Your task to perform on an android device: Search for a home improvement project you can do. Image 0: 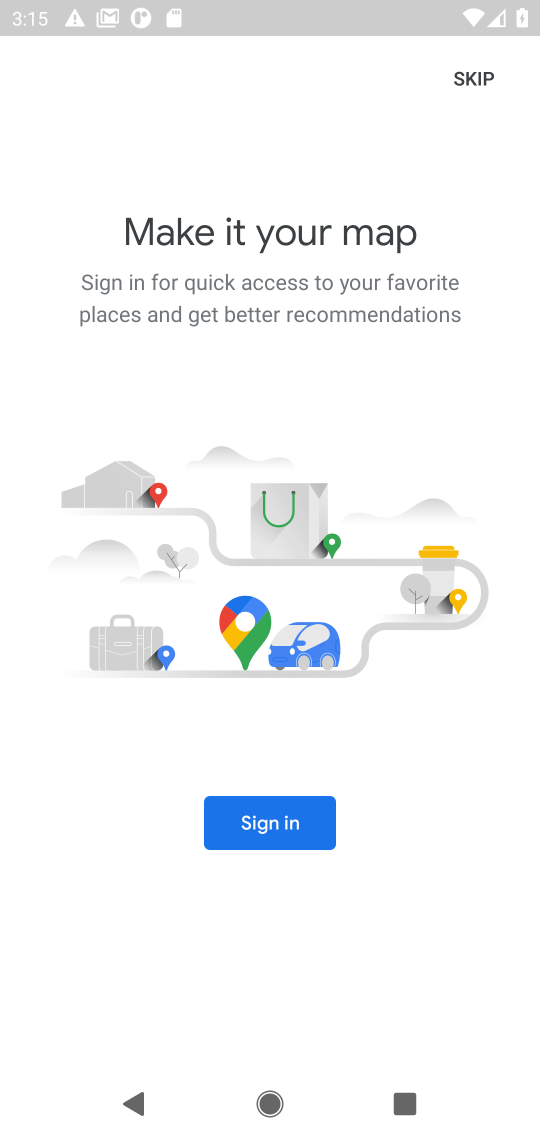
Step 0: press home button
Your task to perform on an android device: Search for a home improvement project you can do. Image 1: 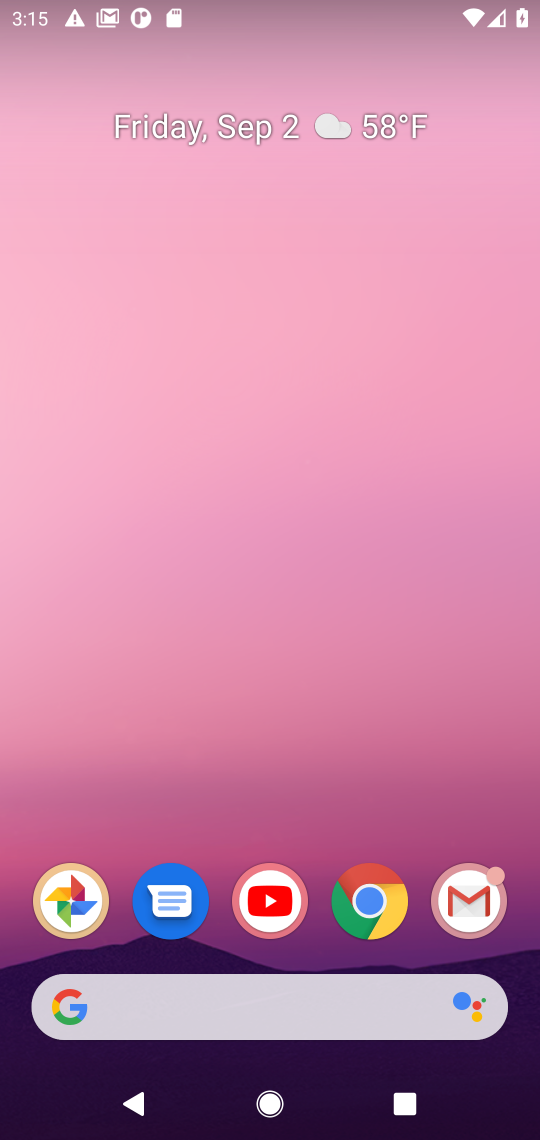
Step 1: drag from (292, 816) to (271, 48)
Your task to perform on an android device: Search for a home improvement project you can do. Image 2: 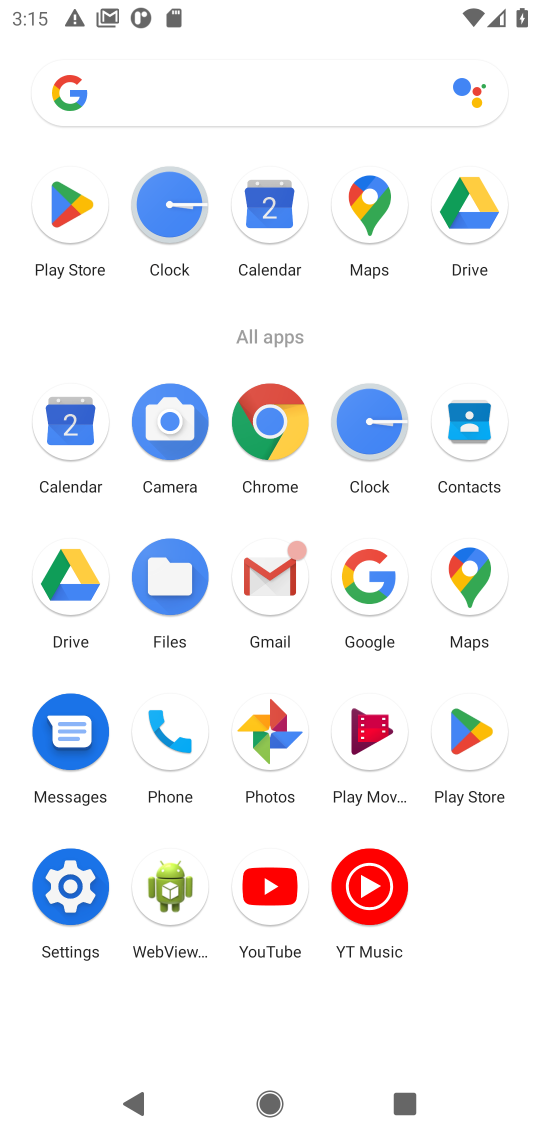
Step 2: click (286, 420)
Your task to perform on an android device: Search for a home improvement project you can do. Image 3: 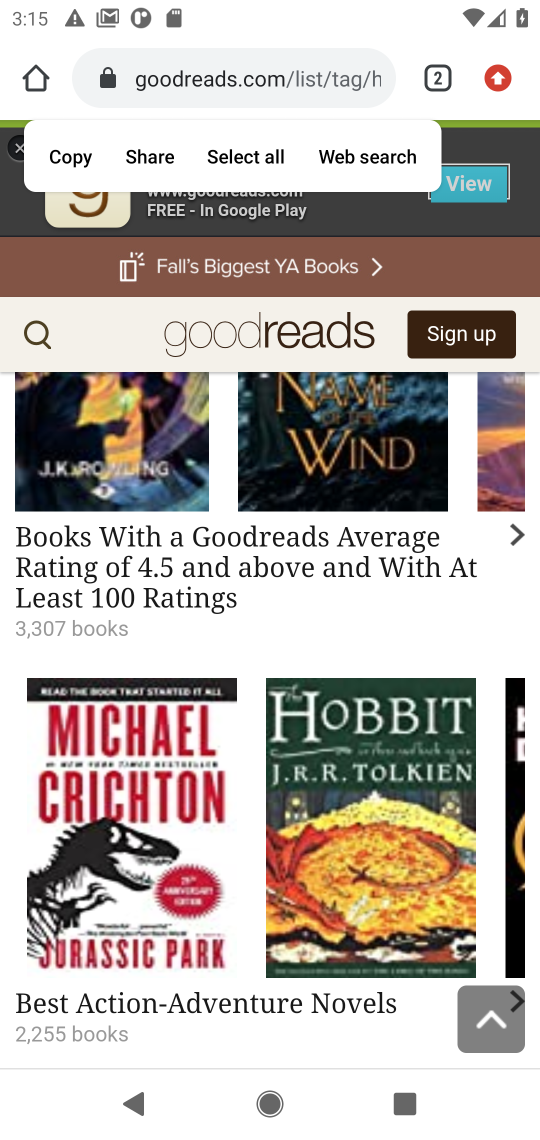
Step 3: click (321, 87)
Your task to perform on an android device: Search for a home improvement project you can do. Image 4: 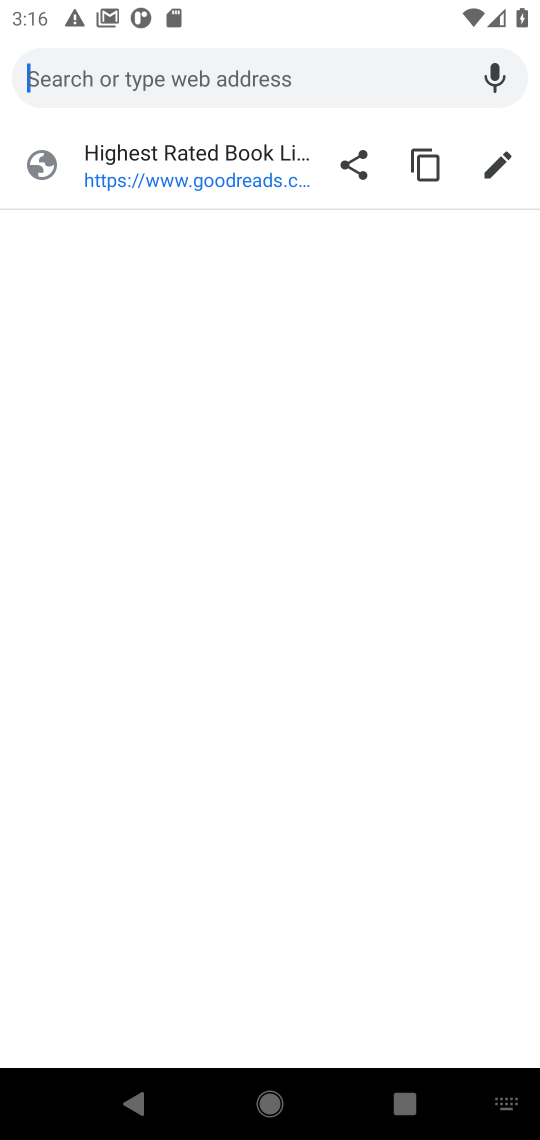
Step 4: type "Home improvement project "
Your task to perform on an android device: Search for a home improvement project you can do. Image 5: 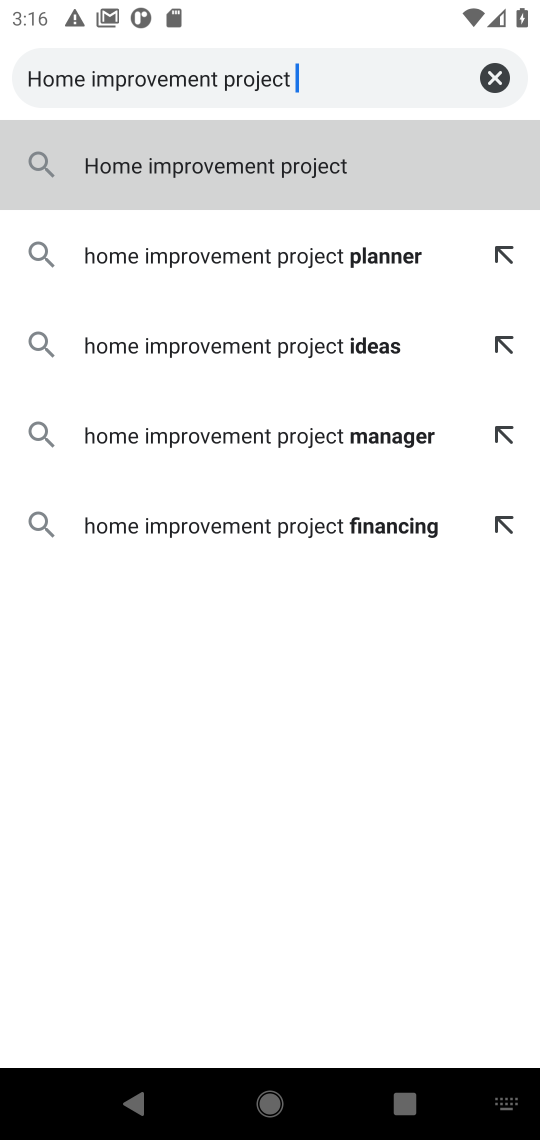
Step 5: click (314, 157)
Your task to perform on an android device: Search for a home improvement project you can do. Image 6: 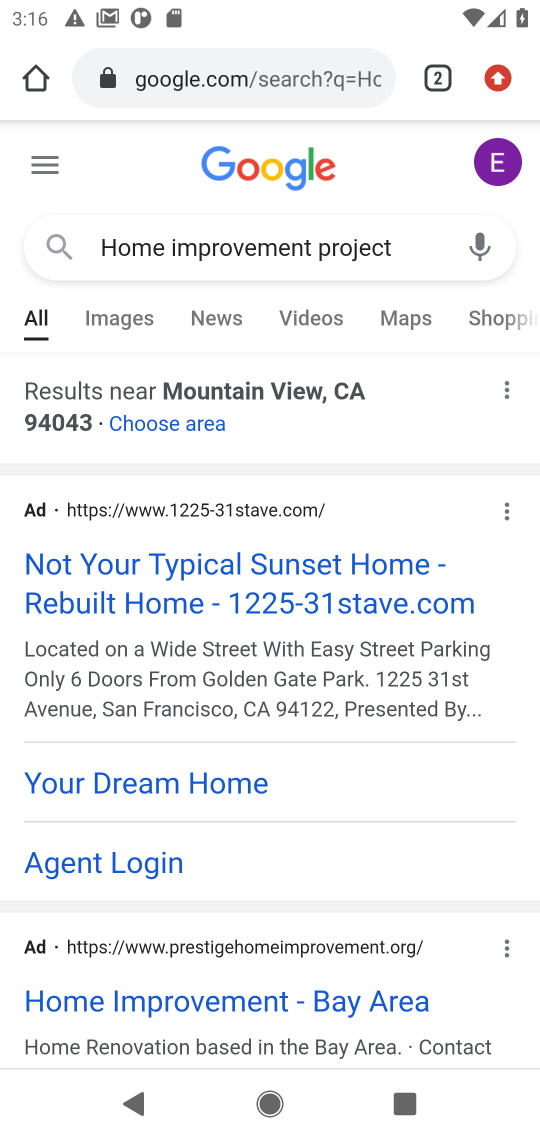
Step 6: drag from (270, 939) to (304, 168)
Your task to perform on an android device: Search for a home improvement project you can do. Image 7: 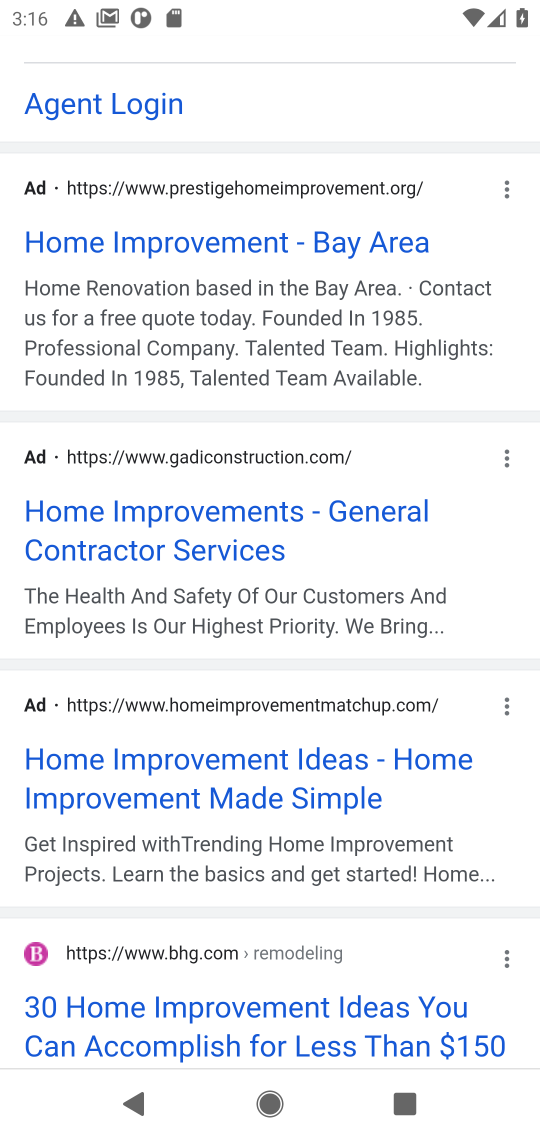
Step 7: click (183, 1025)
Your task to perform on an android device: Search for a home improvement project you can do. Image 8: 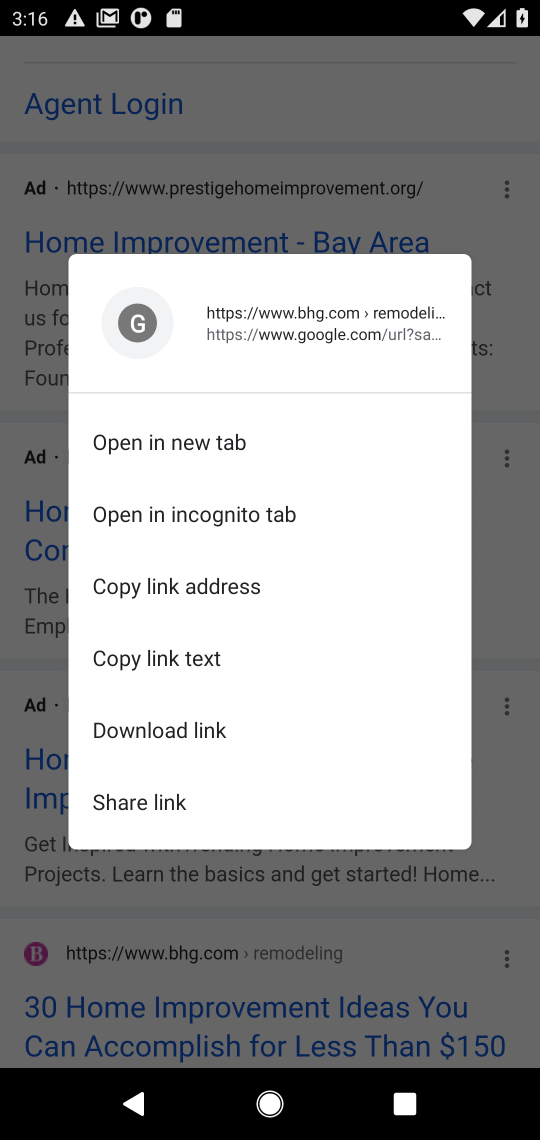
Step 8: click (207, 930)
Your task to perform on an android device: Search for a home improvement project you can do. Image 9: 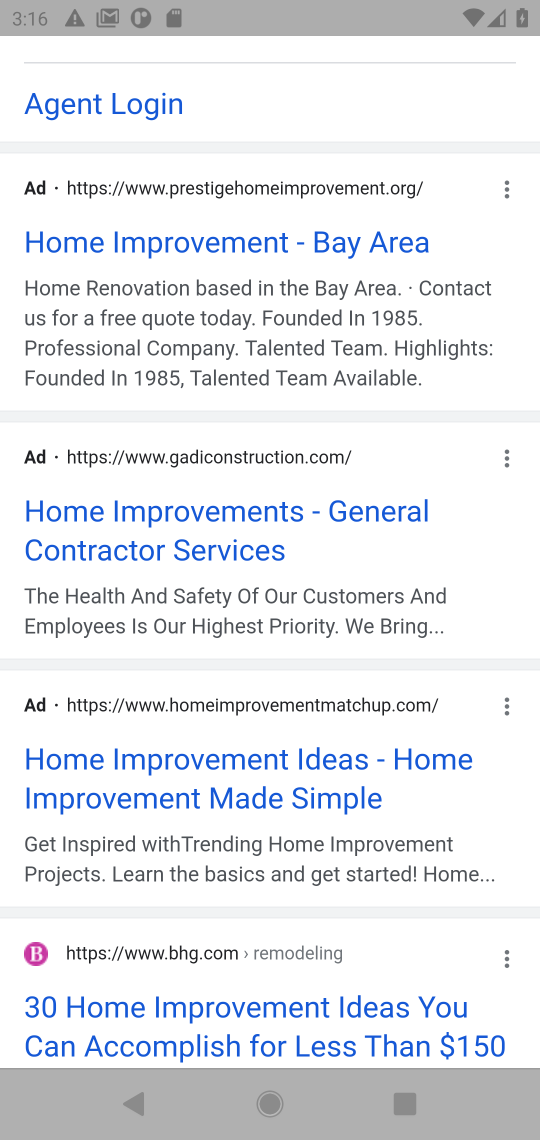
Step 9: drag from (285, 912) to (365, 162)
Your task to perform on an android device: Search for a home improvement project you can do. Image 10: 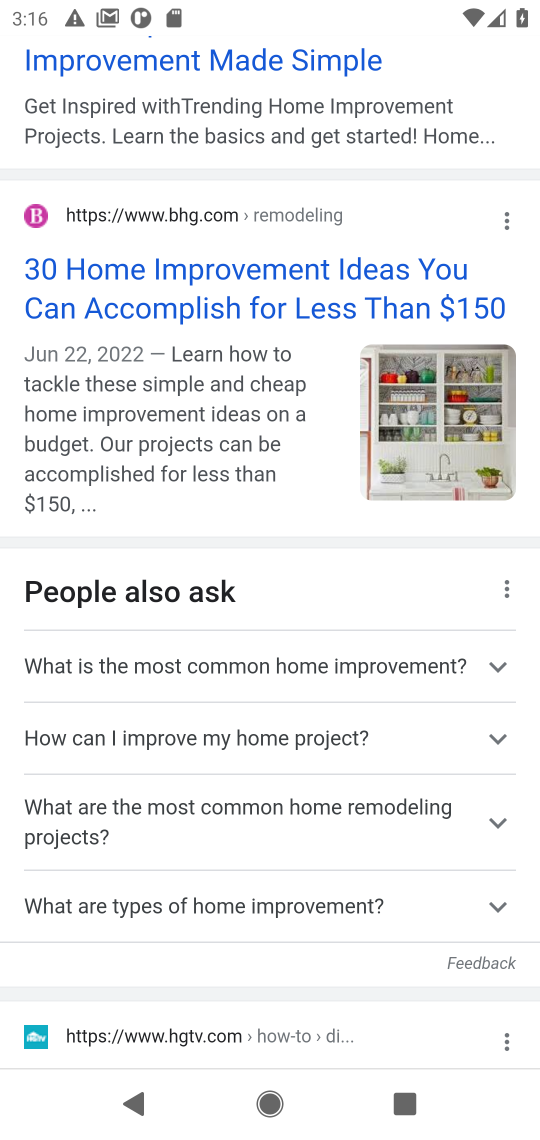
Step 10: drag from (259, 931) to (315, 561)
Your task to perform on an android device: Search for a home improvement project you can do. Image 11: 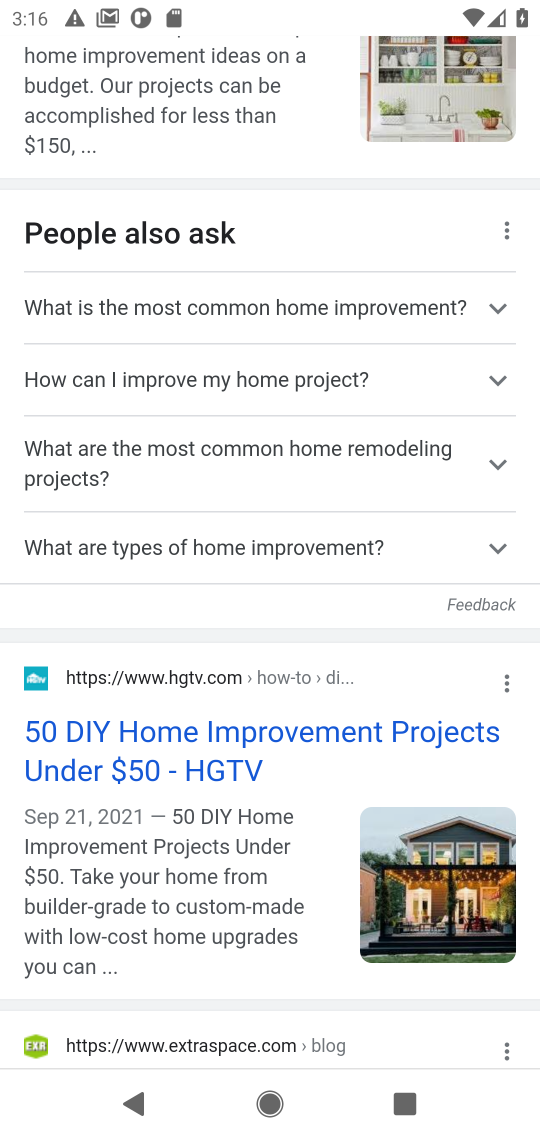
Step 11: drag from (286, 857) to (263, 484)
Your task to perform on an android device: Search for a home improvement project you can do. Image 12: 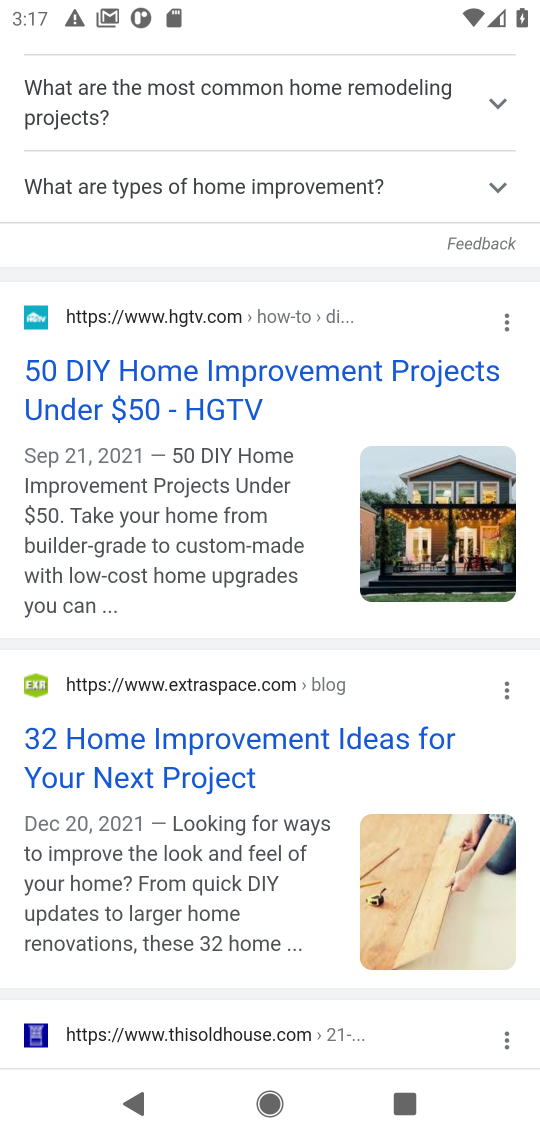
Step 12: click (193, 734)
Your task to perform on an android device: Search for a home improvement project you can do. Image 13: 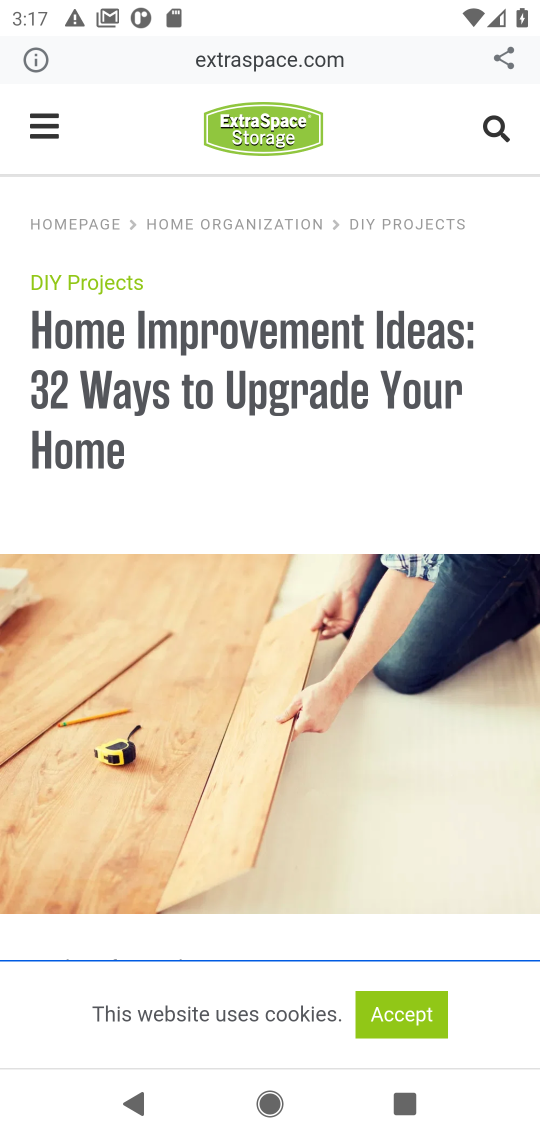
Step 13: task complete